Your task to perform on an android device: Go to calendar. Show me events next week Image 0: 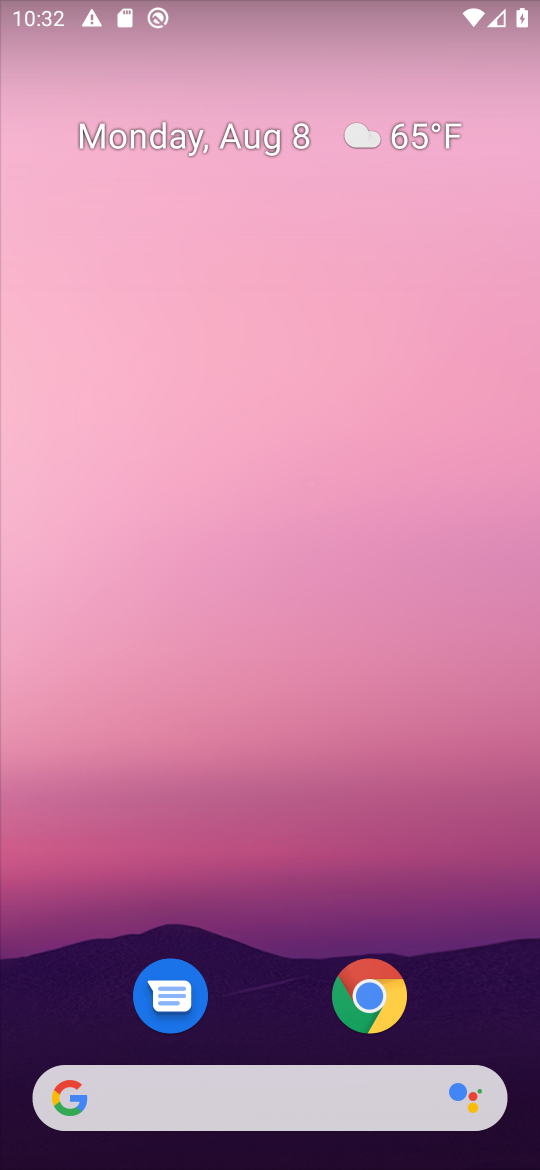
Step 0: press home button
Your task to perform on an android device: Go to calendar. Show me events next week Image 1: 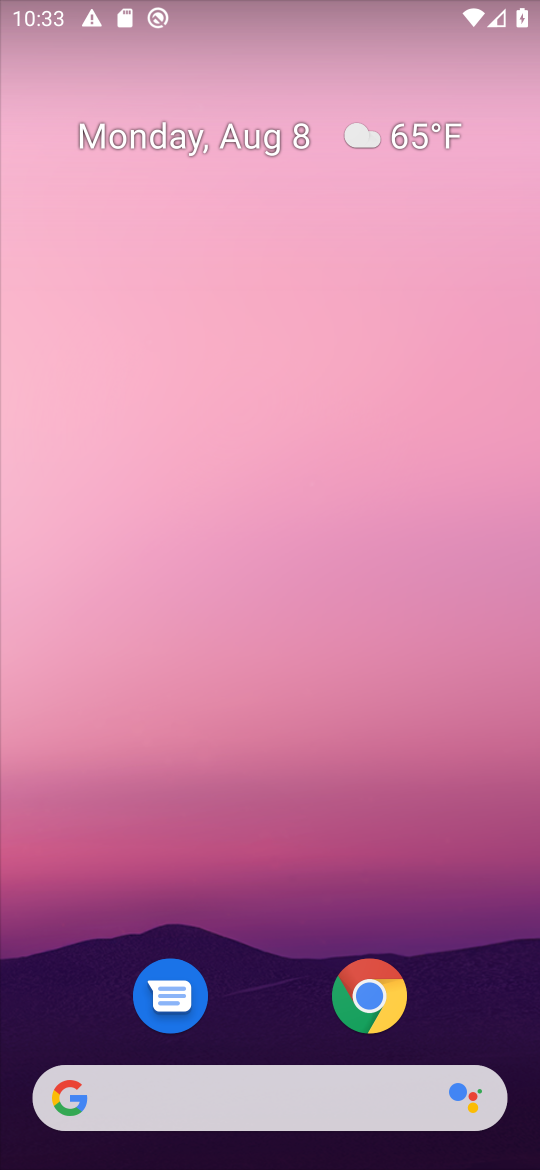
Step 1: drag from (304, 1026) to (126, 243)
Your task to perform on an android device: Go to calendar. Show me events next week Image 2: 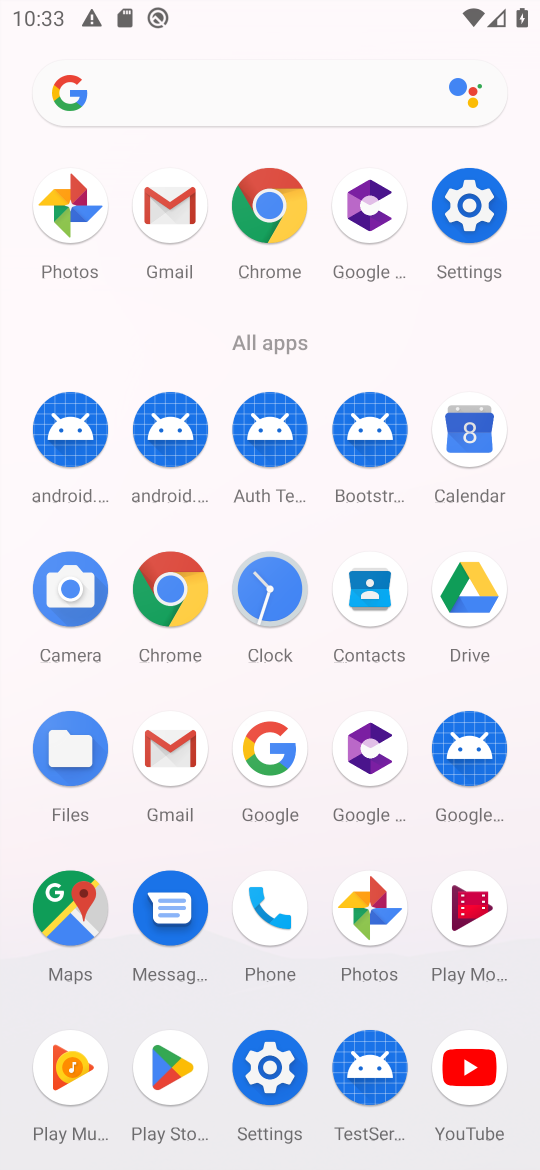
Step 2: click (460, 454)
Your task to perform on an android device: Go to calendar. Show me events next week Image 3: 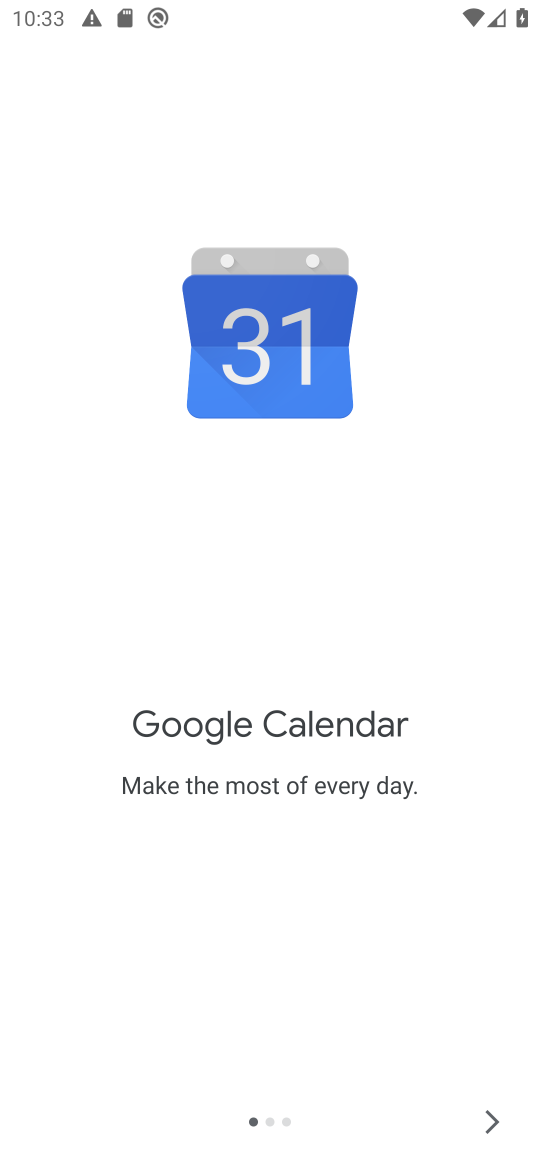
Step 3: click (498, 1115)
Your task to perform on an android device: Go to calendar. Show me events next week Image 4: 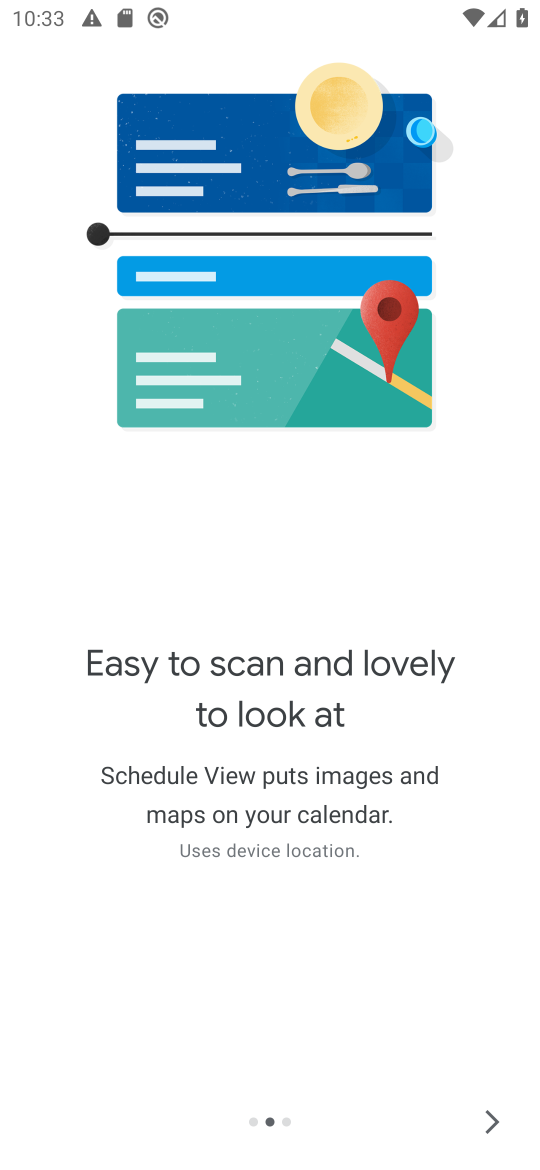
Step 4: click (501, 1115)
Your task to perform on an android device: Go to calendar. Show me events next week Image 5: 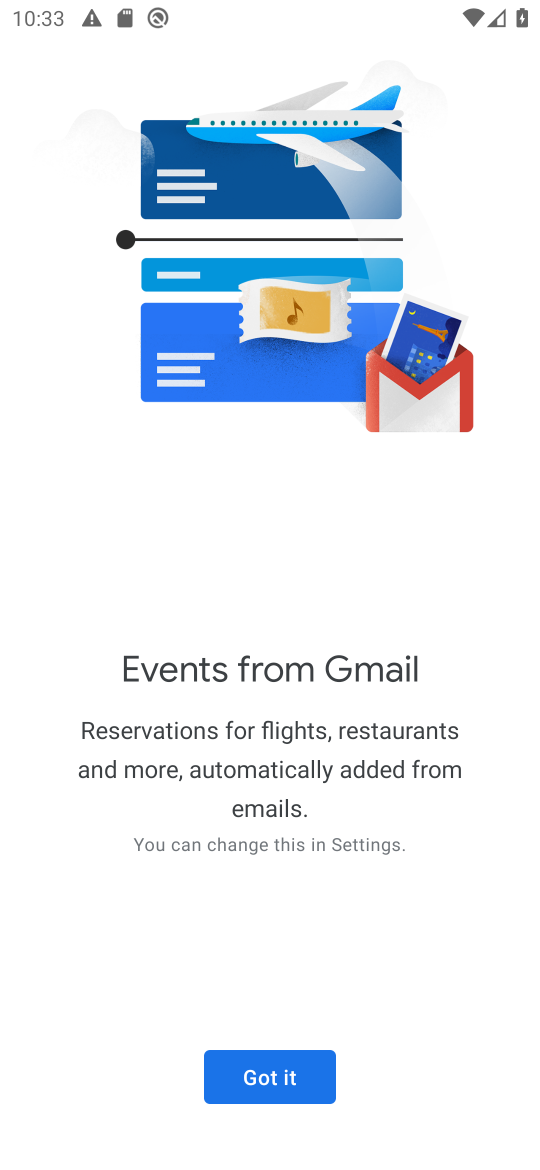
Step 5: click (307, 1076)
Your task to perform on an android device: Go to calendar. Show me events next week Image 6: 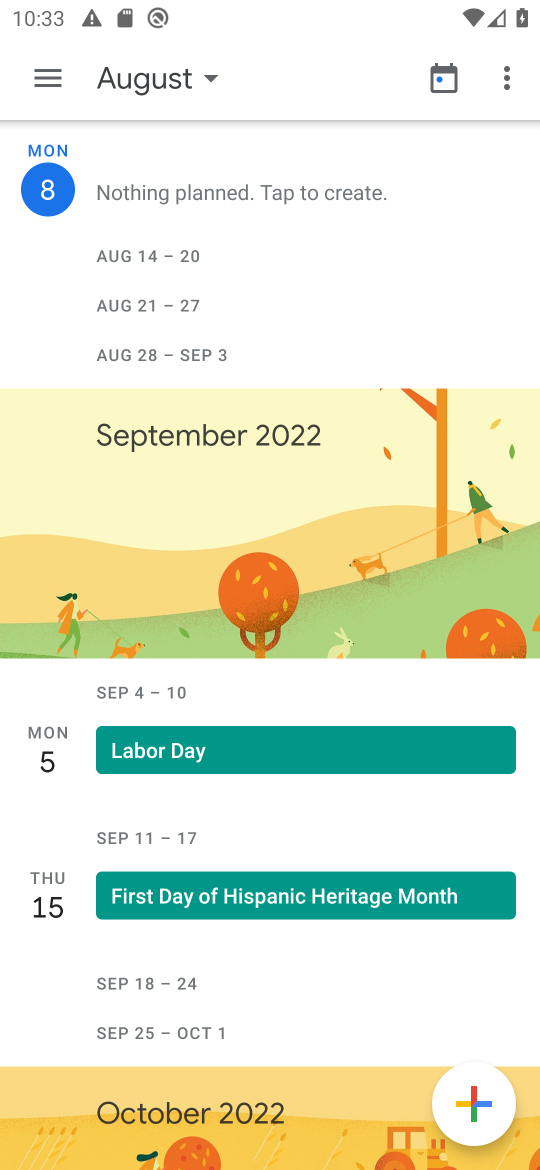
Step 6: click (47, 73)
Your task to perform on an android device: Go to calendar. Show me events next week Image 7: 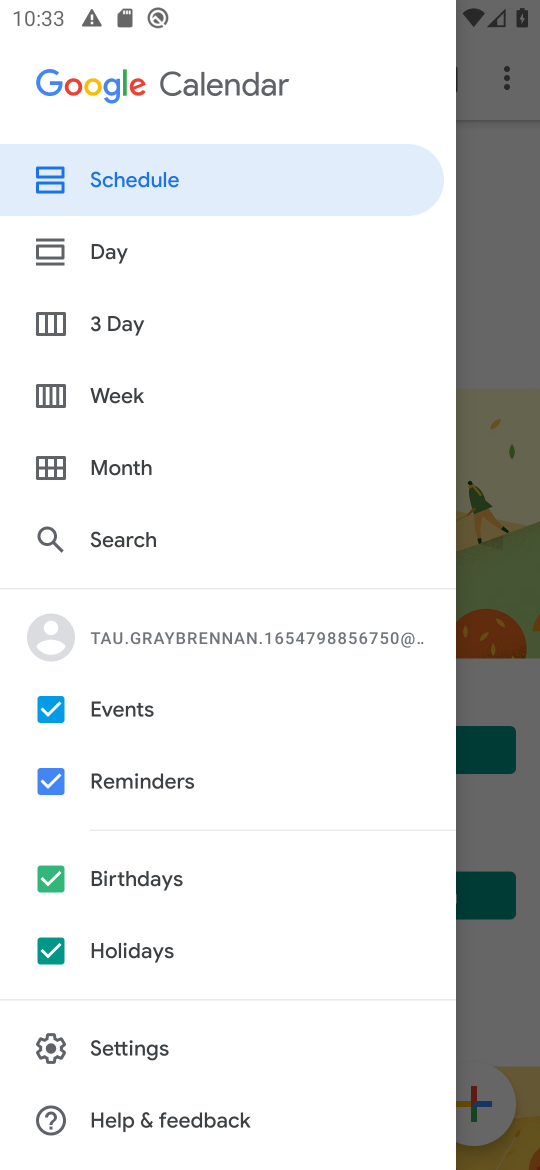
Step 7: click (134, 408)
Your task to perform on an android device: Go to calendar. Show me events next week Image 8: 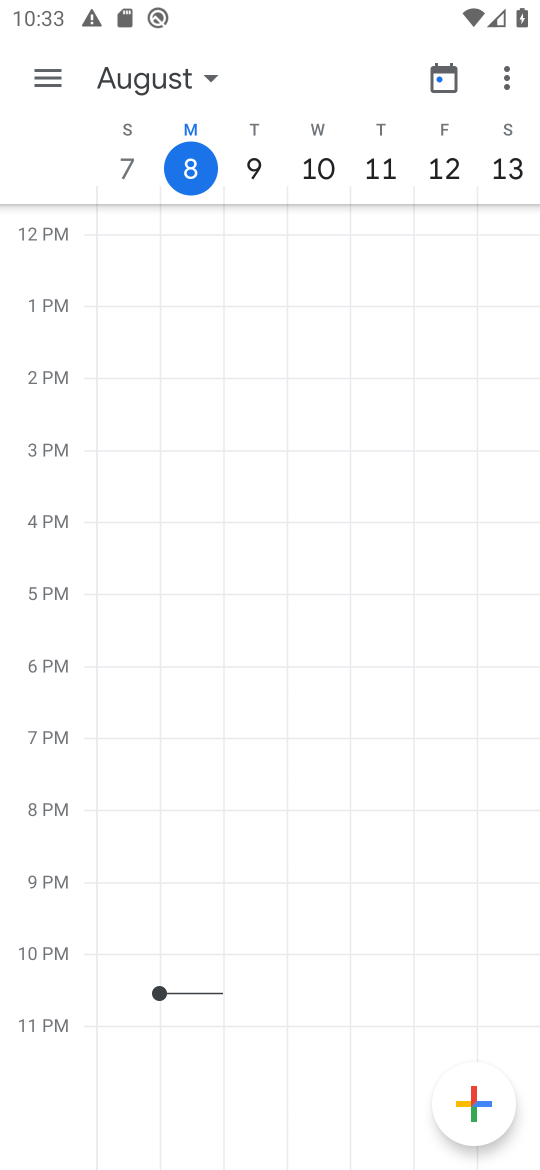
Step 8: task complete